Your task to perform on an android device: open a bookmark in the chrome app Image 0: 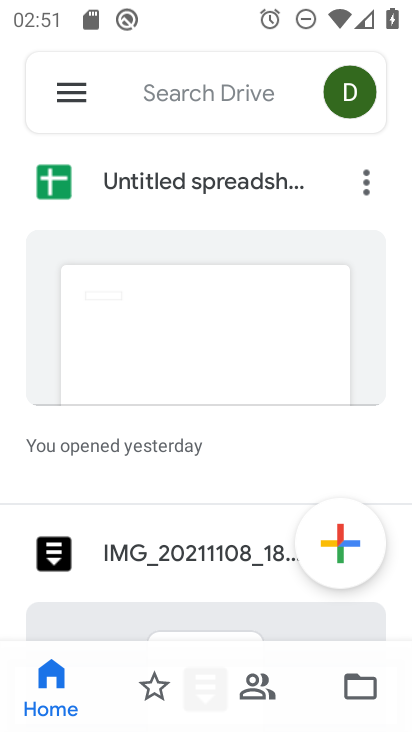
Step 0: press home button
Your task to perform on an android device: open a bookmark in the chrome app Image 1: 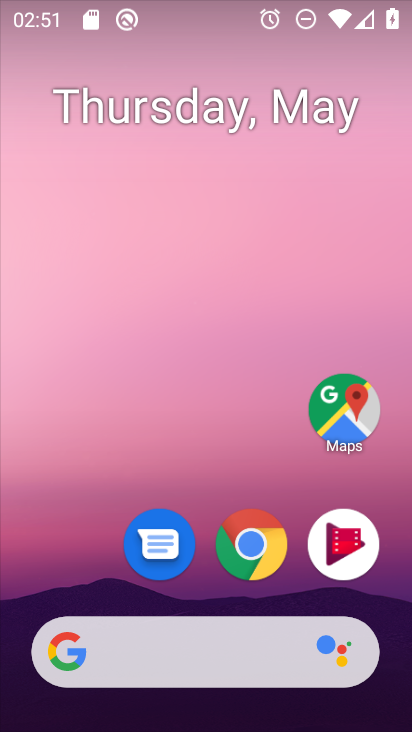
Step 1: drag from (385, 607) to (375, 221)
Your task to perform on an android device: open a bookmark in the chrome app Image 2: 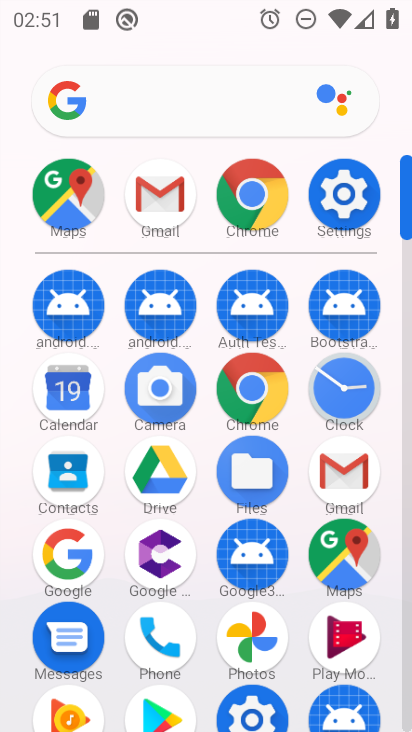
Step 2: click (254, 368)
Your task to perform on an android device: open a bookmark in the chrome app Image 3: 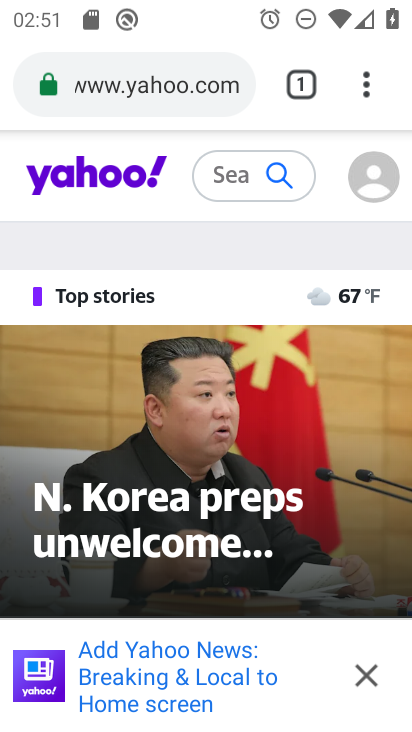
Step 3: click (363, 88)
Your task to perform on an android device: open a bookmark in the chrome app Image 4: 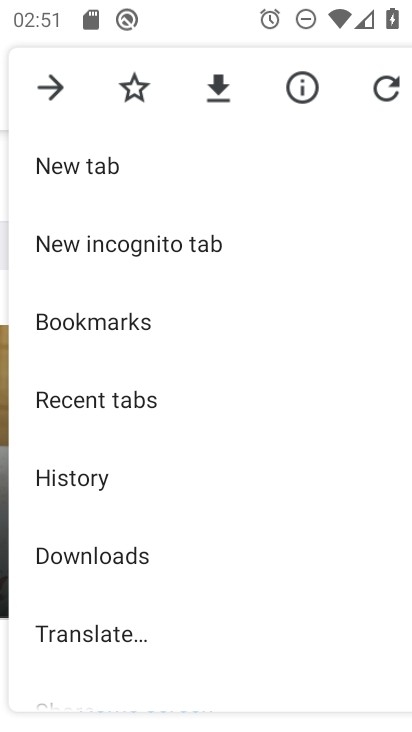
Step 4: drag from (306, 592) to (297, 469)
Your task to perform on an android device: open a bookmark in the chrome app Image 5: 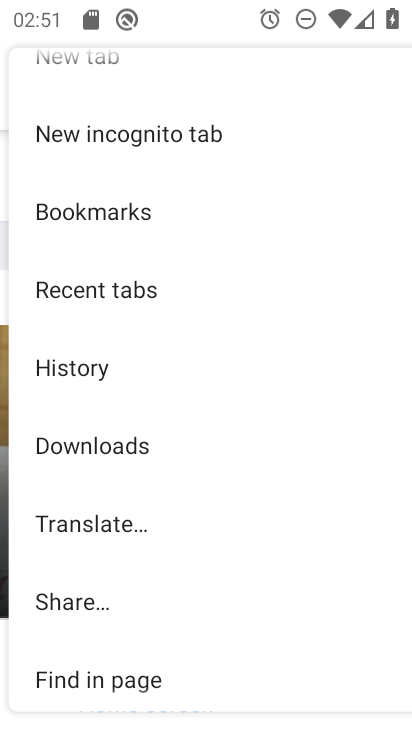
Step 5: drag from (288, 610) to (285, 484)
Your task to perform on an android device: open a bookmark in the chrome app Image 6: 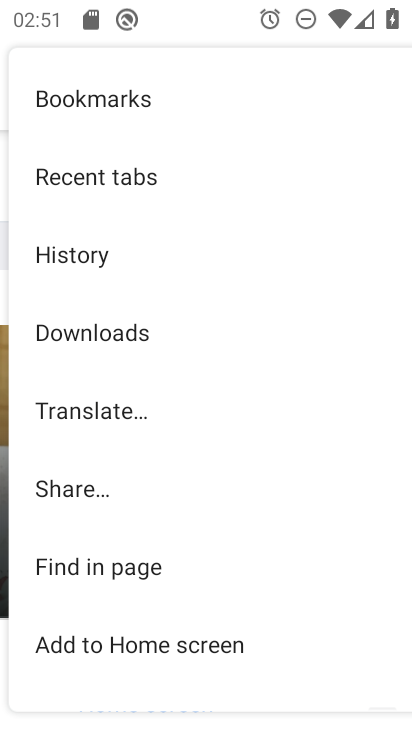
Step 6: drag from (278, 623) to (286, 536)
Your task to perform on an android device: open a bookmark in the chrome app Image 7: 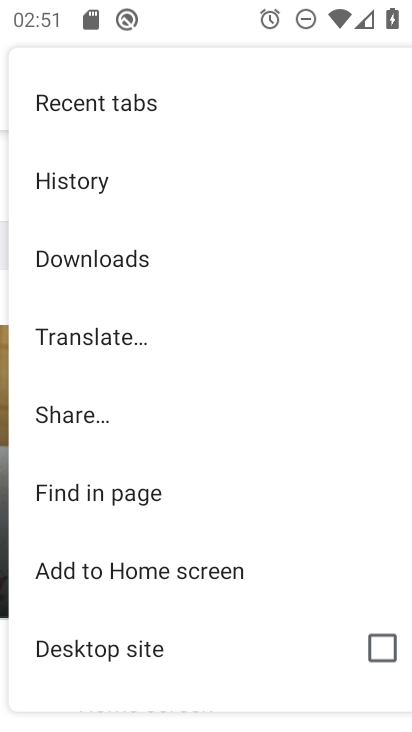
Step 7: drag from (275, 604) to (275, 541)
Your task to perform on an android device: open a bookmark in the chrome app Image 8: 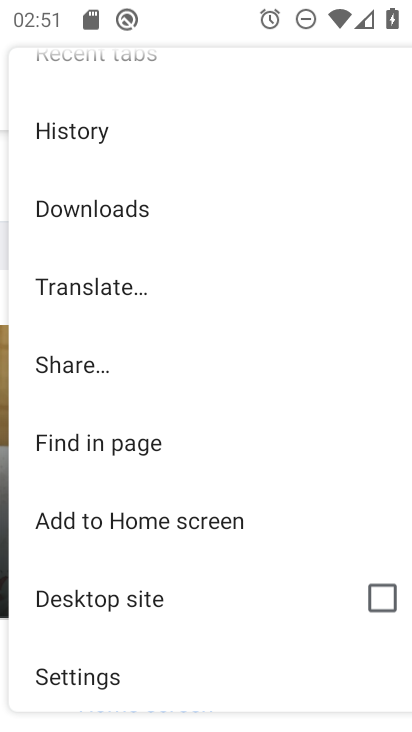
Step 8: drag from (276, 655) to (279, 524)
Your task to perform on an android device: open a bookmark in the chrome app Image 9: 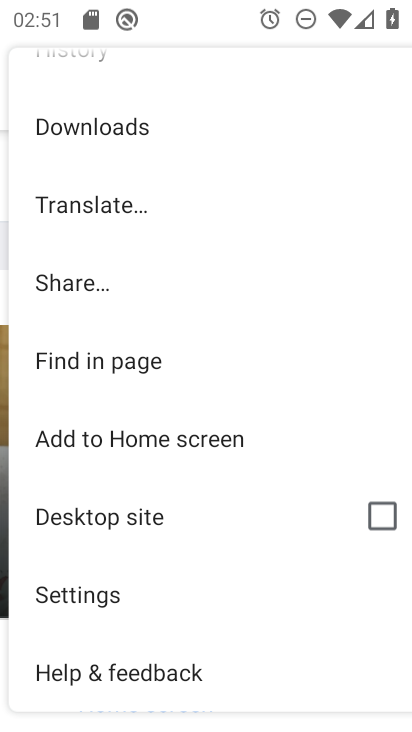
Step 9: drag from (286, 675) to (290, 546)
Your task to perform on an android device: open a bookmark in the chrome app Image 10: 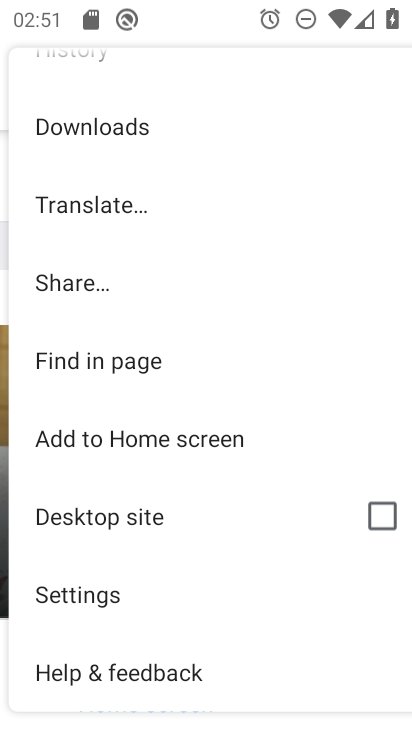
Step 10: drag from (295, 306) to (284, 457)
Your task to perform on an android device: open a bookmark in the chrome app Image 11: 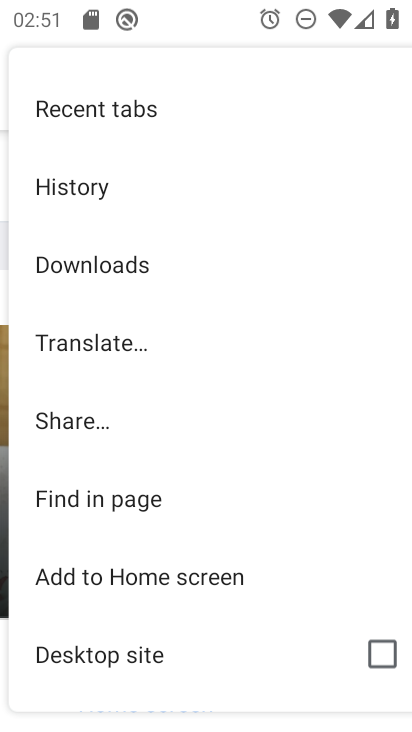
Step 11: drag from (280, 317) to (282, 464)
Your task to perform on an android device: open a bookmark in the chrome app Image 12: 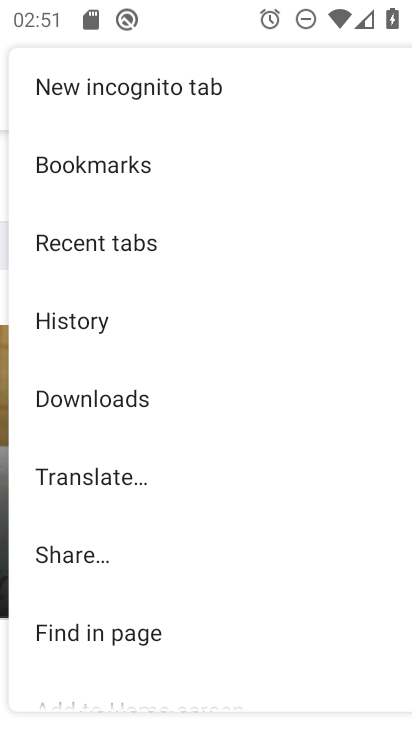
Step 12: drag from (276, 302) to (273, 441)
Your task to perform on an android device: open a bookmark in the chrome app Image 13: 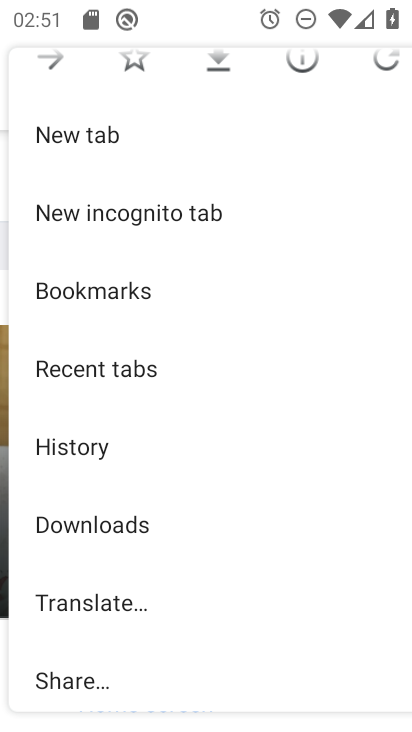
Step 13: drag from (268, 259) to (270, 373)
Your task to perform on an android device: open a bookmark in the chrome app Image 14: 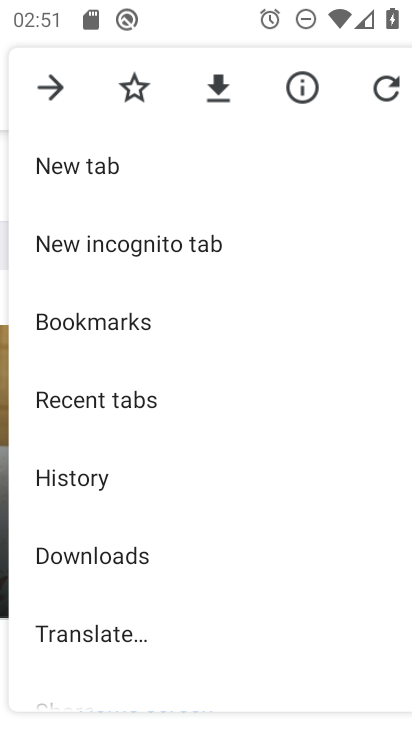
Step 14: click (166, 320)
Your task to perform on an android device: open a bookmark in the chrome app Image 15: 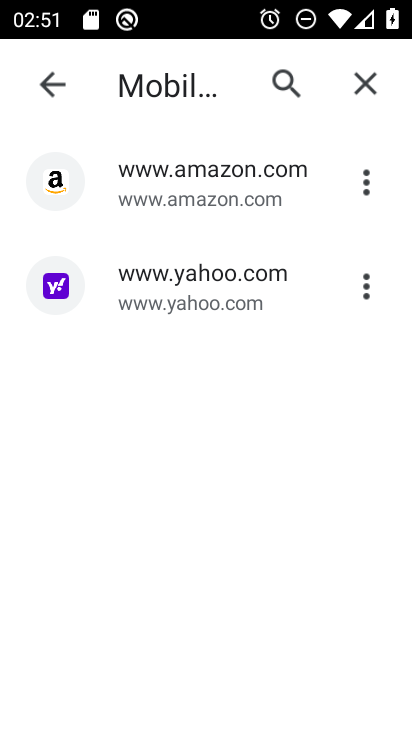
Step 15: click (266, 261)
Your task to perform on an android device: open a bookmark in the chrome app Image 16: 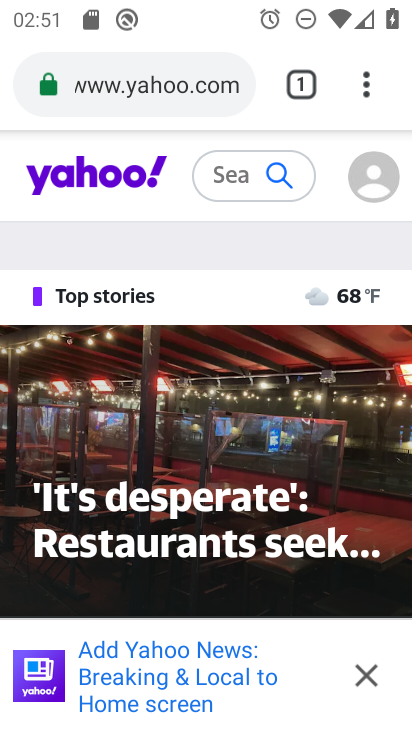
Step 16: task complete